Your task to perform on an android device: What's on my calendar today? Image 0: 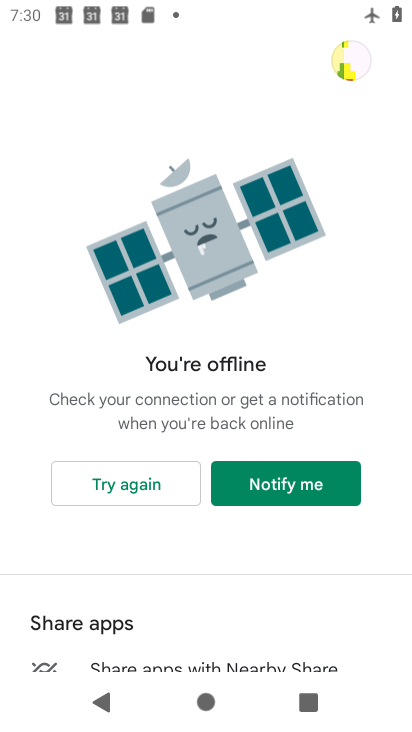
Step 0: press home button
Your task to perform on an android device: What's on my calendar today? Image 1: 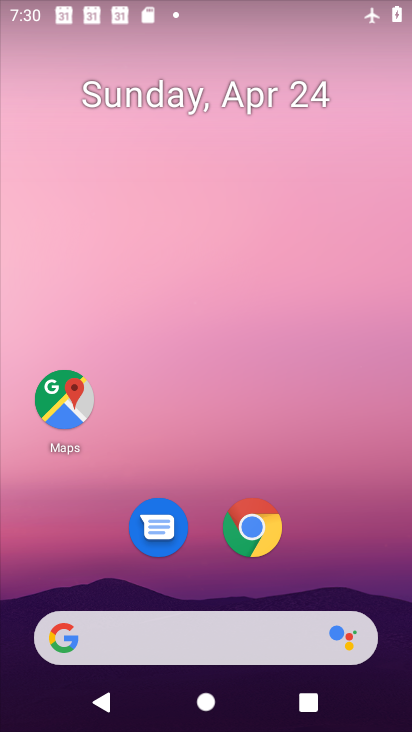
Step 1: drag from (349, 508) to (196, 43)
Your task to perform on an android device: What's on my calendar today? Image 2: 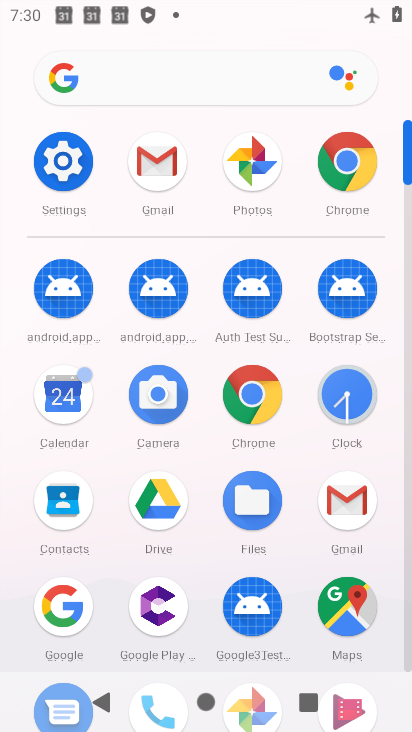
Step 2: click (74, 395)
Your task to perform on an android device: What's on my calendar today? Image 3: 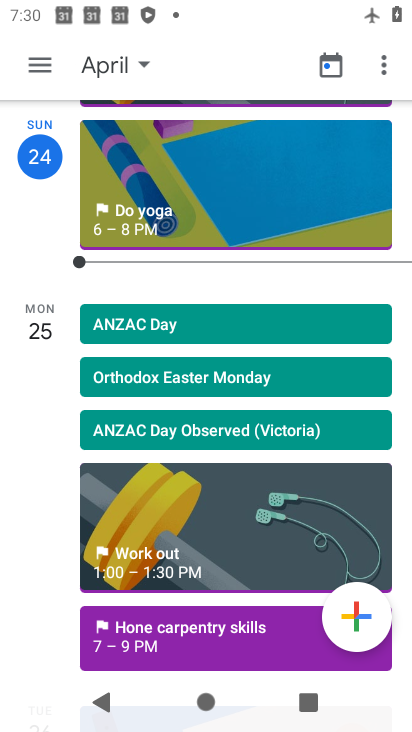
Step 3: click (44, 327)
Your task to perform on an android device: What's on my calendar today? Image 4: 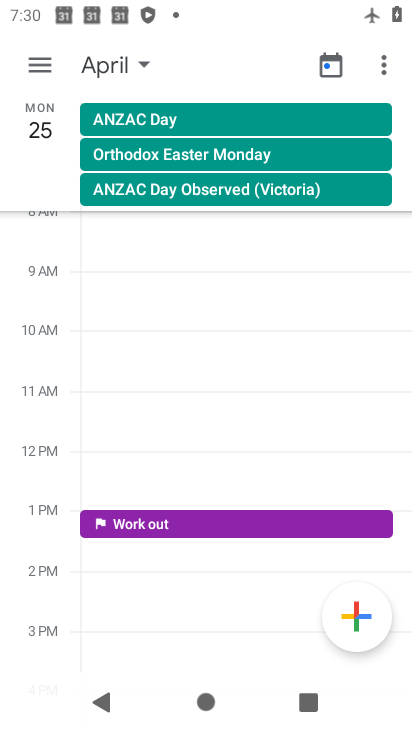
Step 4: task complete